Your task to perform on an android device: Open maps Image 0: 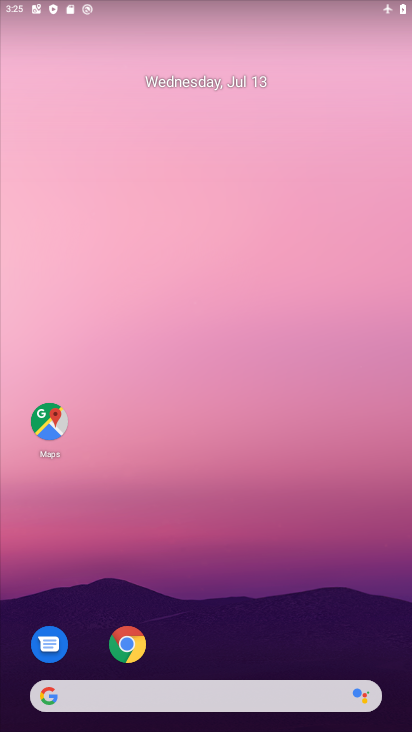
Step 0: drag from (245, 578) to (268, 95)
Your task to perform on an android device: Open maps Image 1: 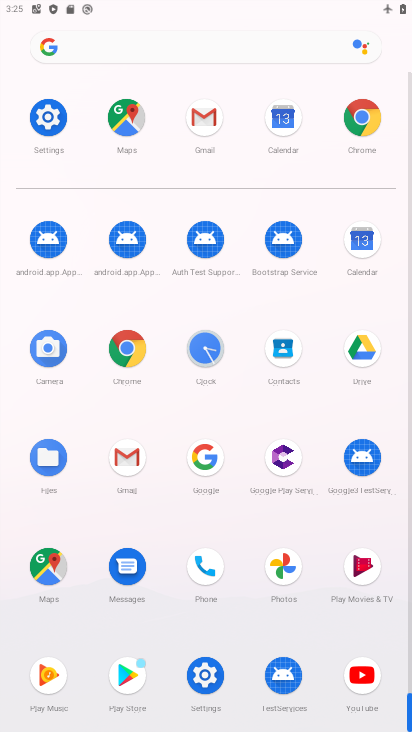
Step 1: click (110, 121)
Your task to perform on an android device: Open maps Image 2: 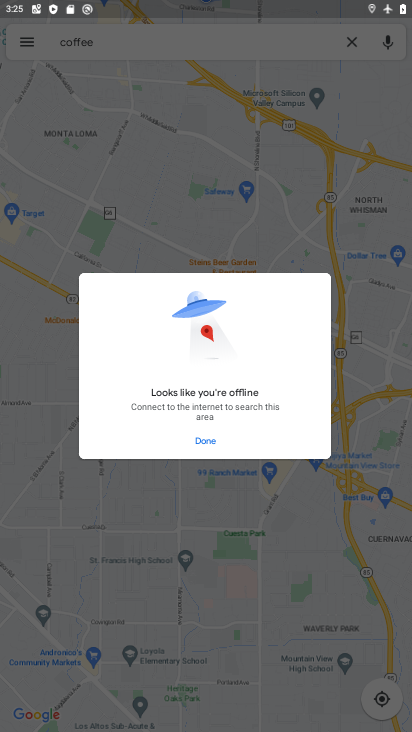
Step 2: task complete